Your task to perform on an android device: Install the Facebook app Image 0: 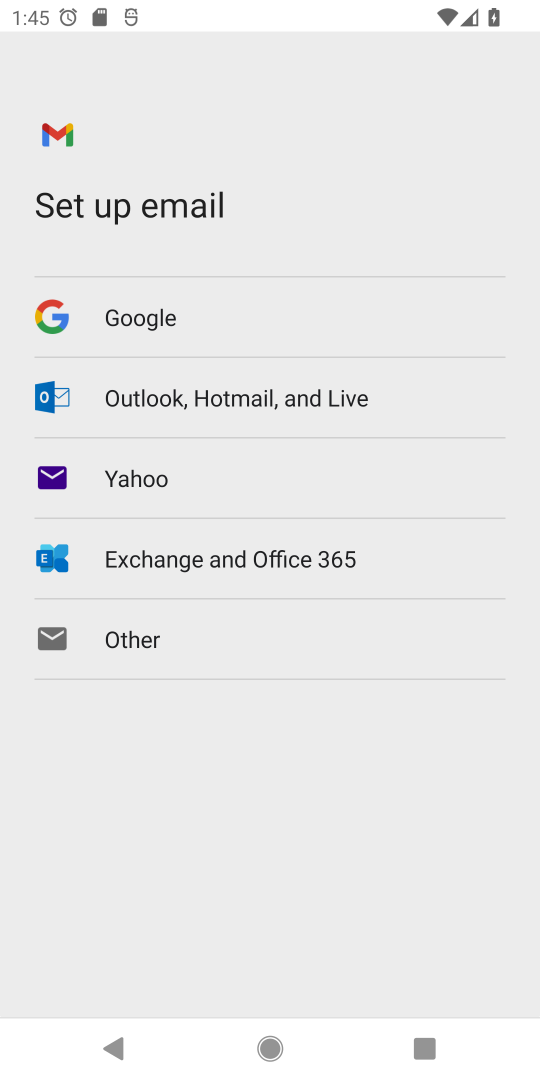
Step 0: press home button
Your task to perform on an android device: Install the Facebook app Image 1: 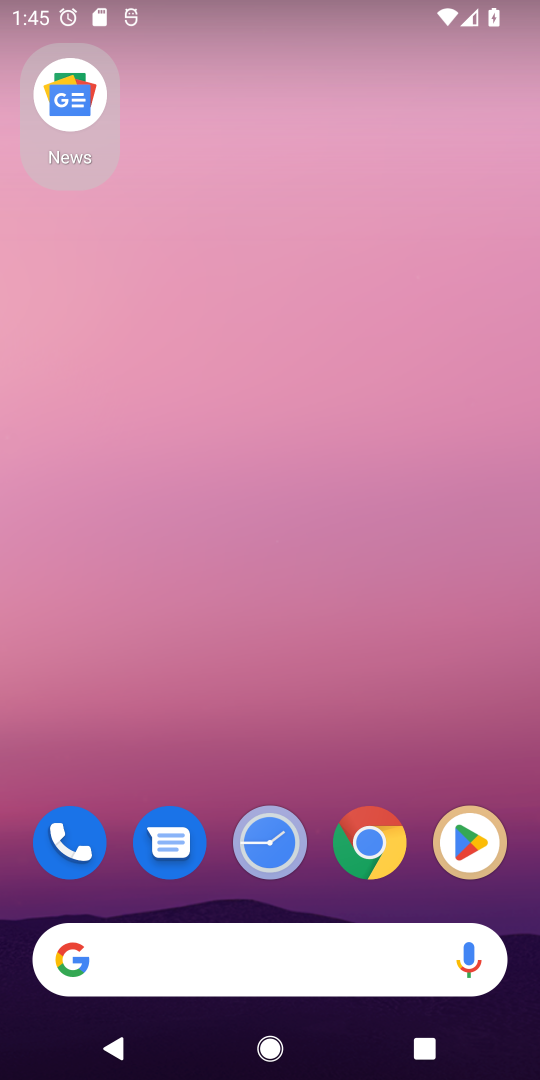
Step 1: drag from (313, 864) to (288, 432)
Your task to perform on an android device: Install the Facebook app Image 2: 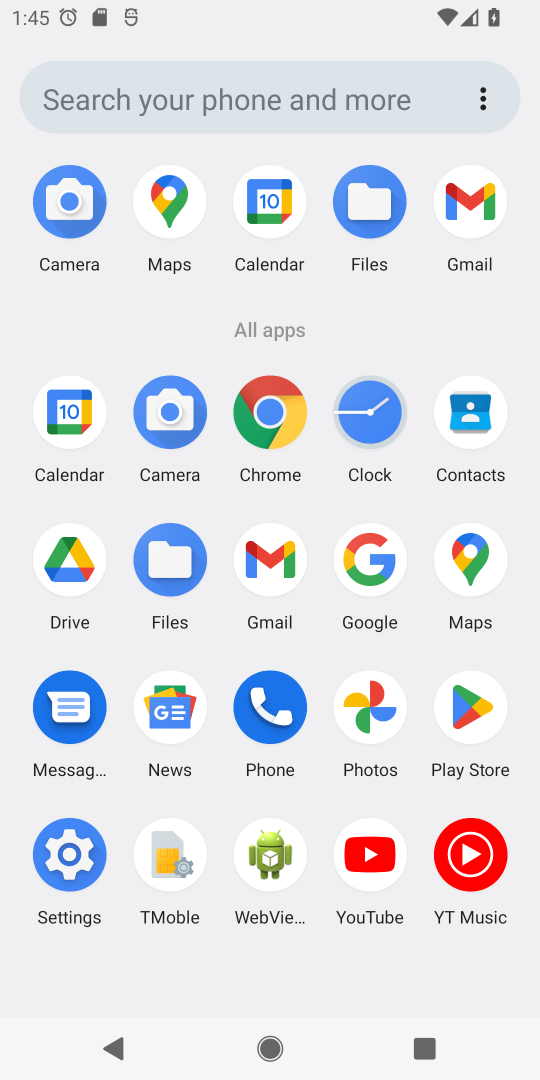
Step 2: click (466, 716)
Your task to perform on an android device: Install the Facebook app Image 3: 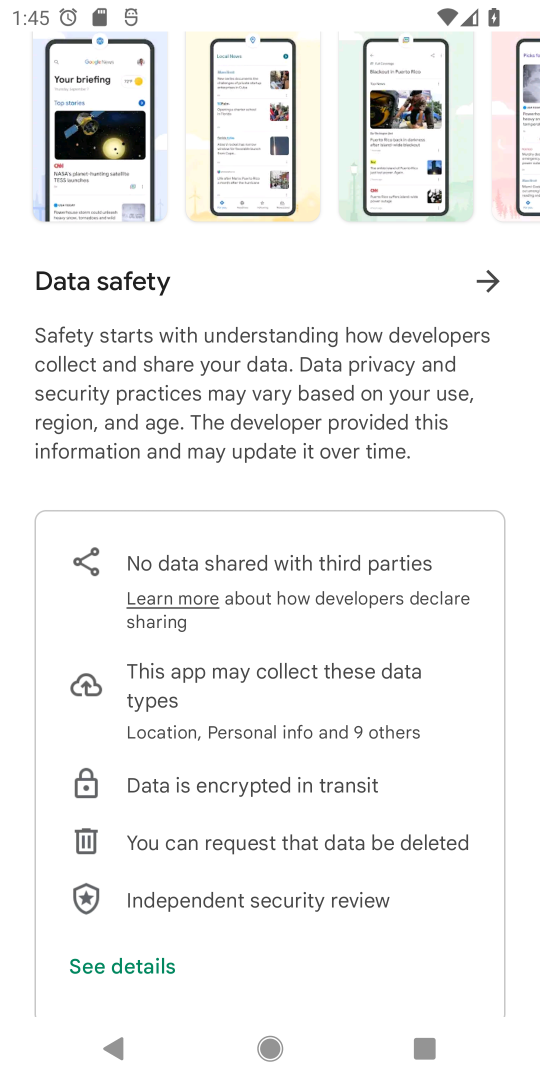
Step 3: drag from (293, 384) to (320, 803)
Your task to perform on an android device: Install the Facebook app Image 4: 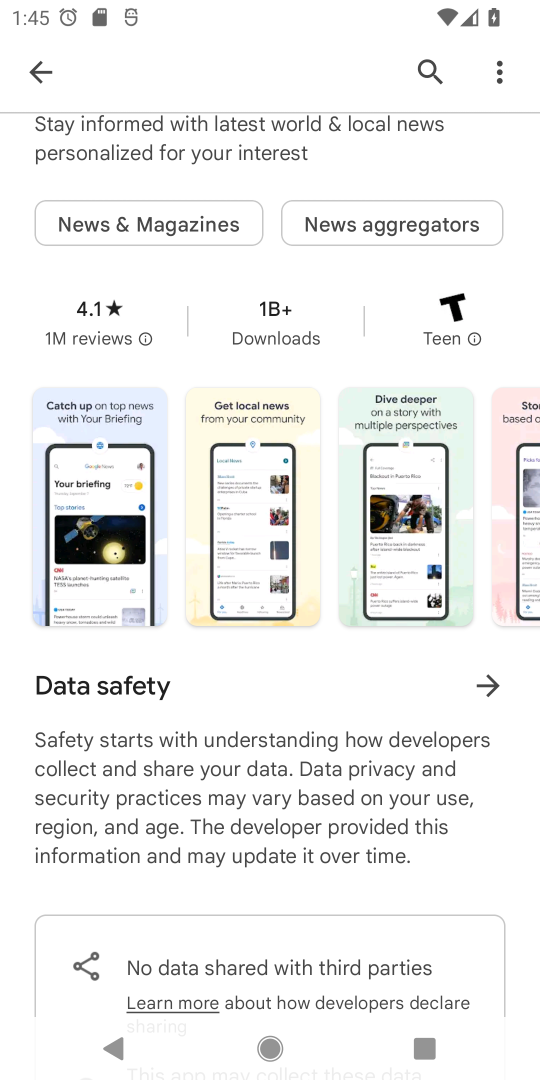
Step 4: drag from (317, 450) to (326, 883)
Your task to perform on an android device: Install the Facebook app Image 5: 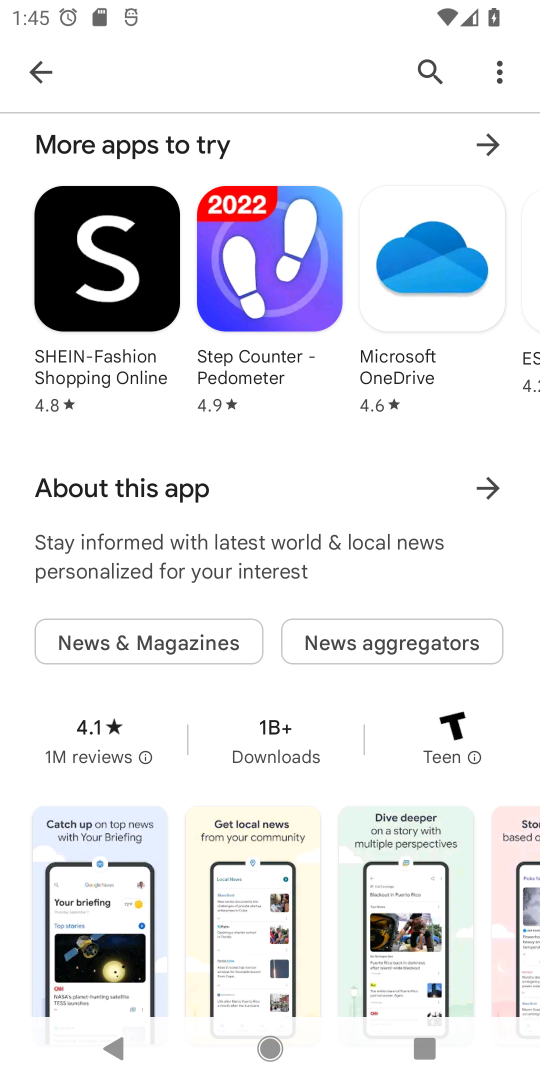
Step 5: click (438, 61)
Your task to perform on an android device: Install the Facebook app Image 6: 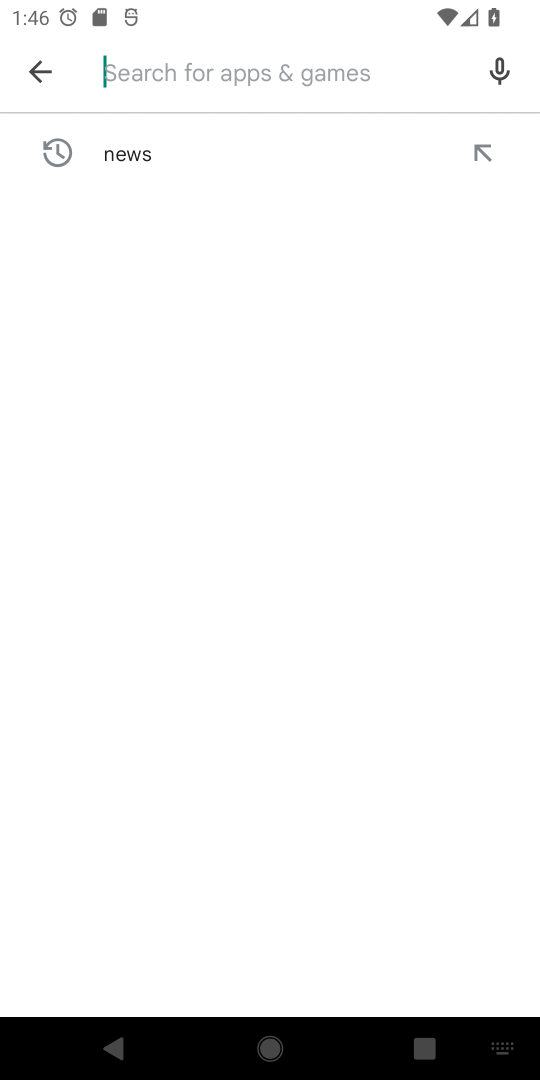
Step 6: type "facebook"
Your task to perform on an android device: Install the Facebook app Image 7: 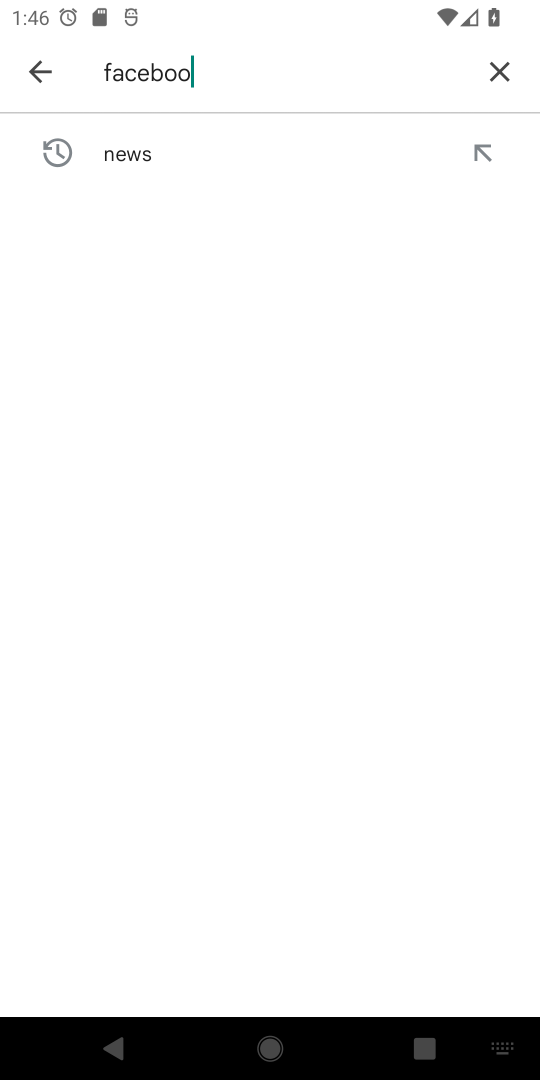
Step 7: type ""
Your task to perform on an android device: Install the Facebook app Image 8: 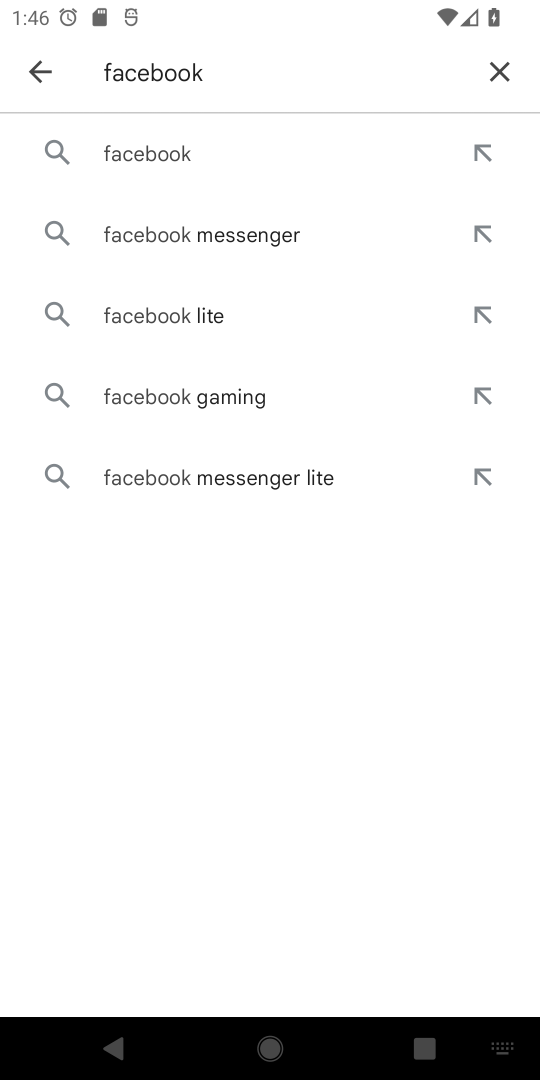
Step 8: press enter
Your task to perform on an android device: Install the Facebook app Image 9: 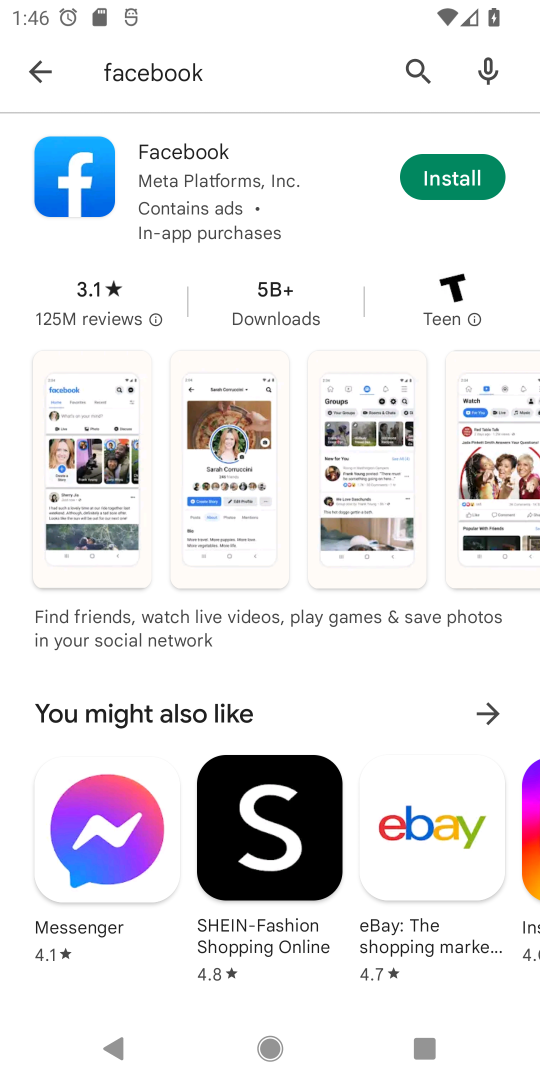
Step 9: click (472, 183)
Your task to perform on an android device: Install the Facebook app Image 10: 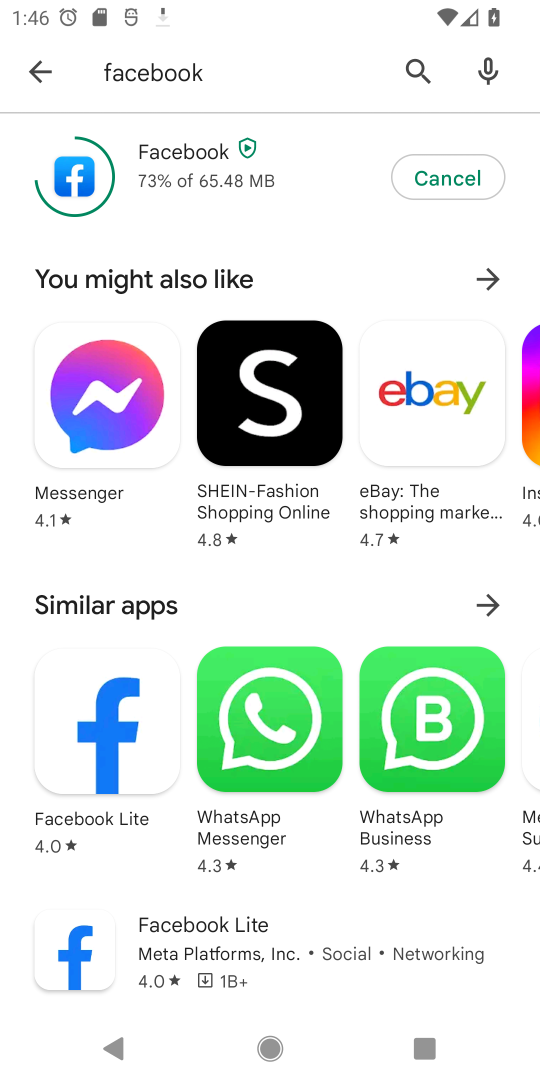
Step 10: drag from (338, 704) to (350, 198)
Your task to perform on an android device: Install the Facebook app Image 11: 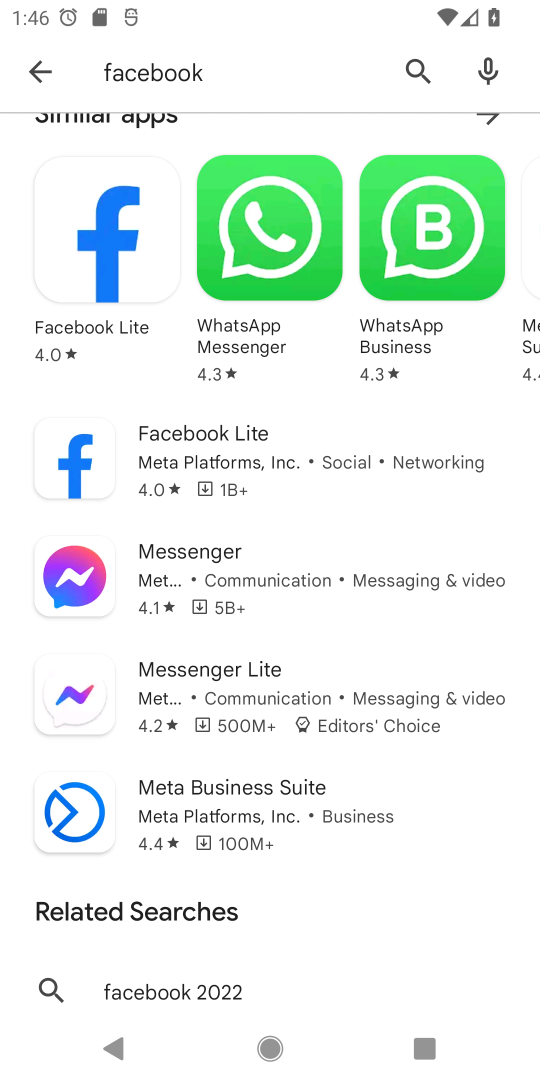
Step 11: drag from (305, 900) to (242, 856)
Your task to perform on an android device: Install the Facebook app Image 12: 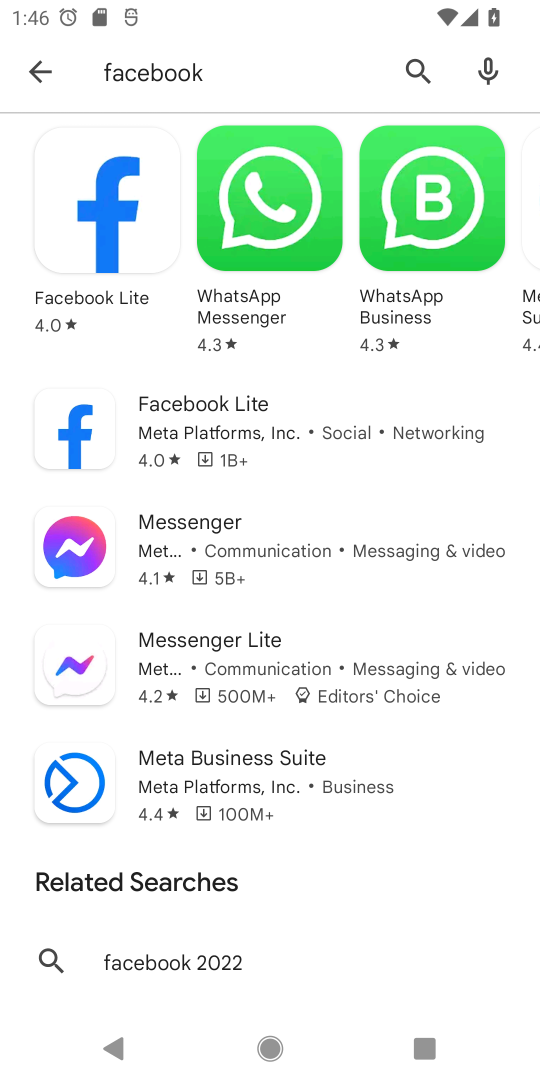
Step 12: drag from (297, 331) to (342, 802)
Your task to perform on an android device: Install the Facebook app Image 13: 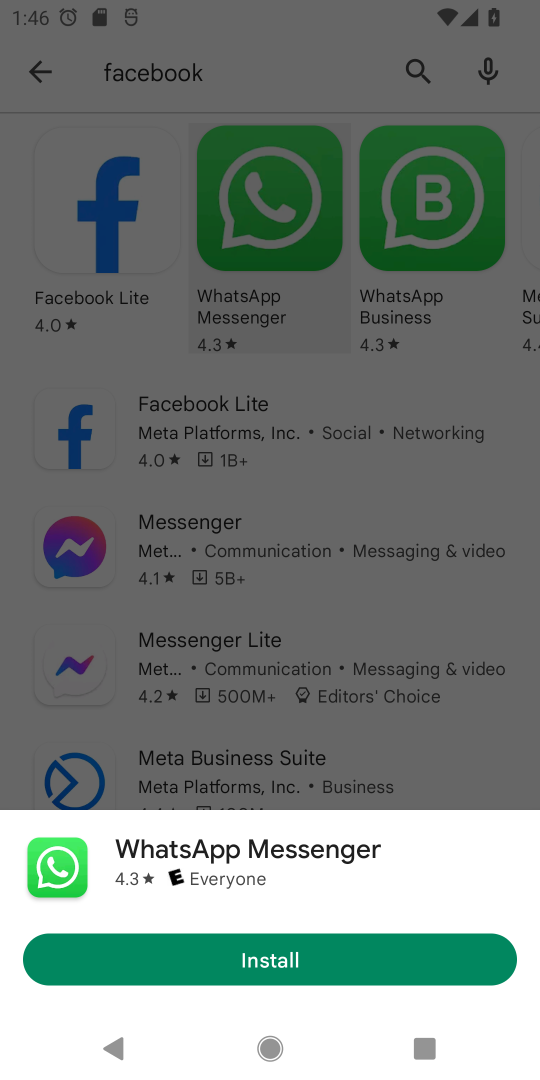
Step 13: click (338, 469)
Your task to perform on an android device: Install the Facebook app Image 14: 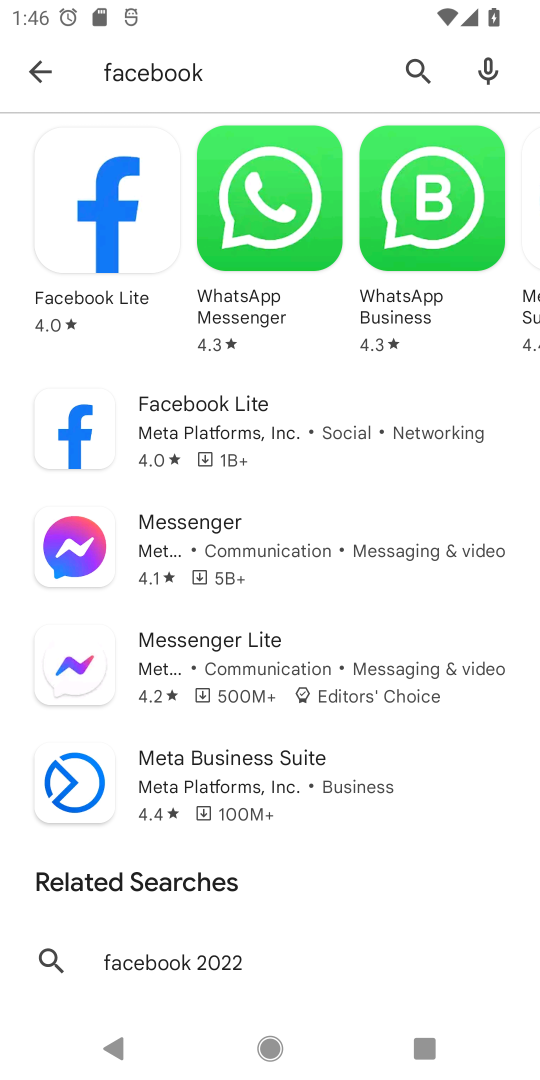
Step 14: task complete